Your task to perform on an android device: toggle javascript in the chrome app Image 0: 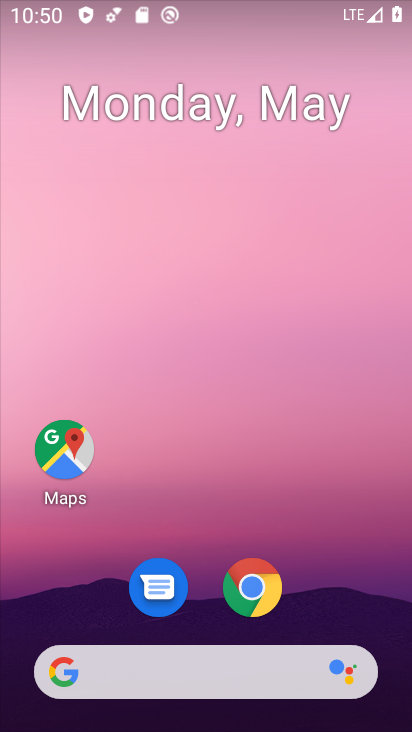
Step 0: click (267, 580)
Your task to perform on an android device: toggle javascript in the chrome app Image 1: 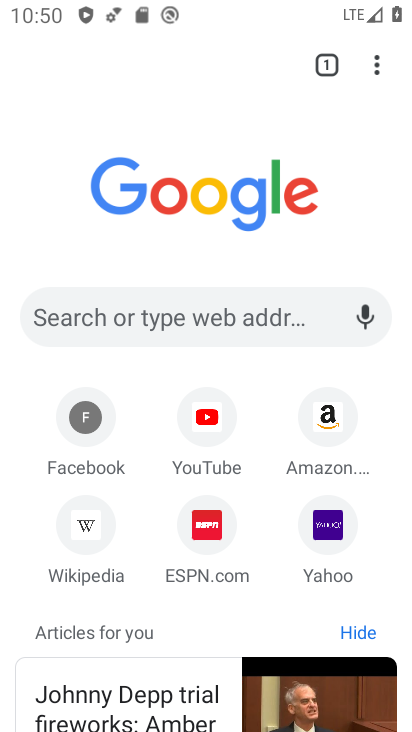
Step 1: click (372, 83)
Your task to perform on an android device: toggle javascript in the chrome app Image 2: 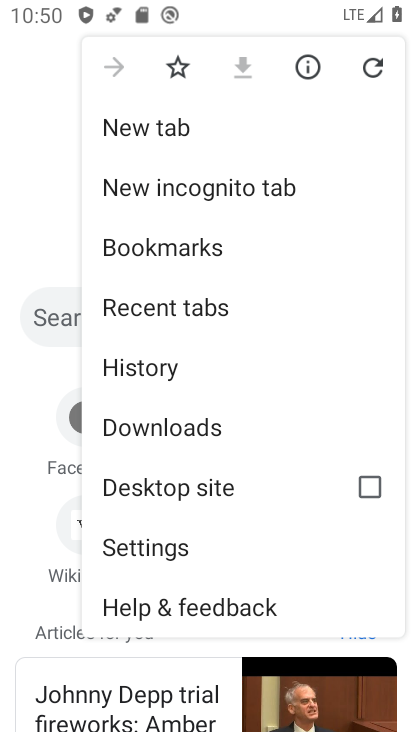
Step 2: click (241, 542)
Your task to perform on an android device: toggle javascript in the chrome app Image 3: 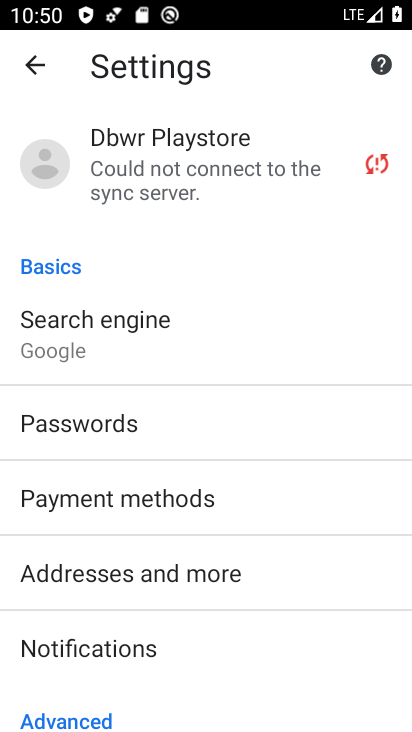
Step 3: drag from (262, 657) to (242, 225)
Your task to perform on an android device: toggle javascript in the chrome app Image 4: 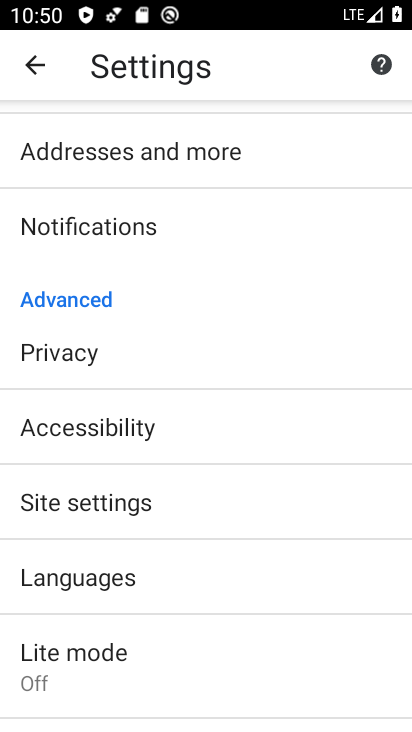
Step 4: click (218, 516)
Your task to perform on an android device: toggle javascript in the chrome app Image 5: 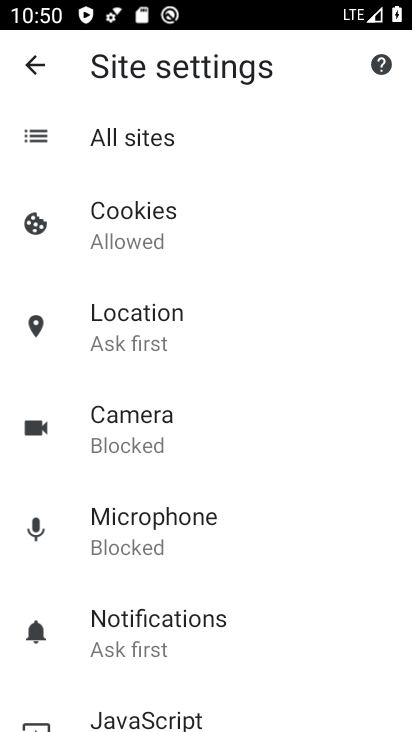
Step 5: drag from (243, 659) to (218, 372)
Your task to perform on an android device: toggle javascript in the chrome app Image 6: 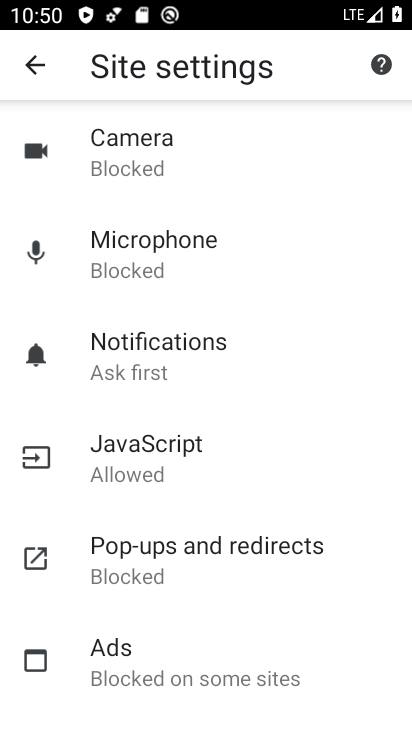
Step 6: click (217, 464)
Your task to perform on an android device: toggle javascript in the chrome app Image 7: 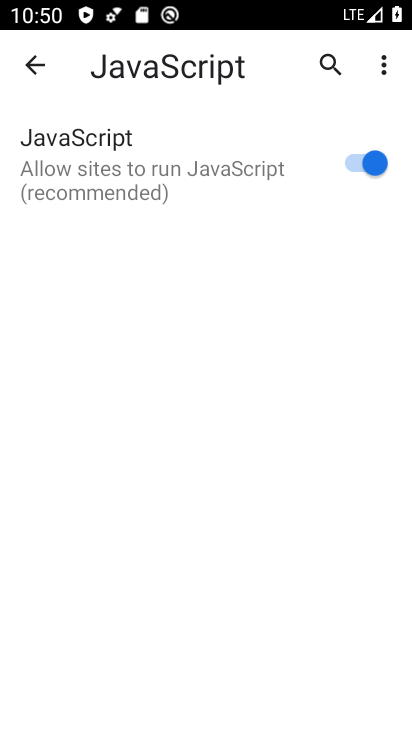
Step 7: click (352, 153)
Your task to perform on an android device: toggle javascript in the chrome app Image 8: 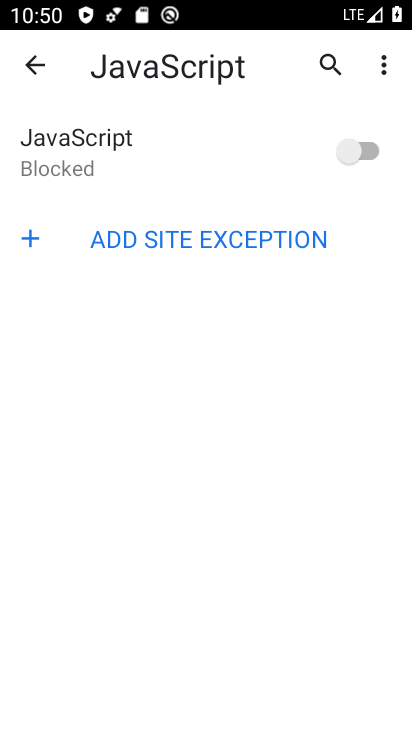
Step 8: task complete